Your task to perform on an android device: turn pop-ups on in chrome Image 0: 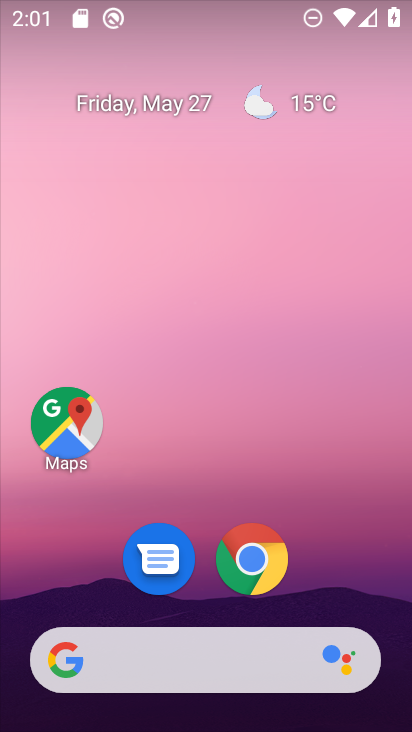
Step 0: drag from (302, 650) to (318, 13)
Your task to perform on an android device: turn pop-ups on in chrome Image 1: 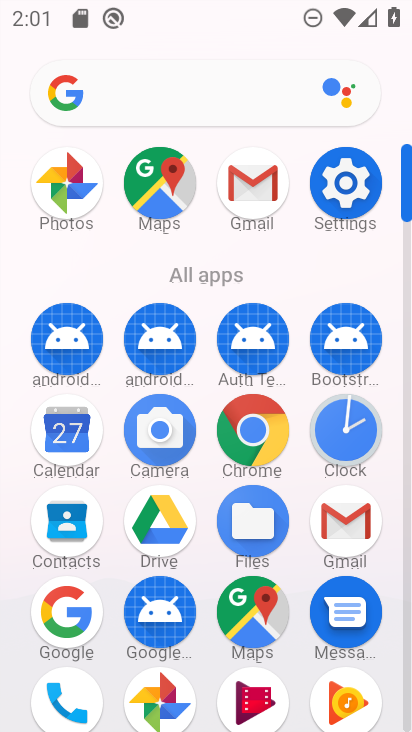
Step 1: click (250, 434)
Your task to perform on an android device: turn pop-ups on in chrome Image 2: 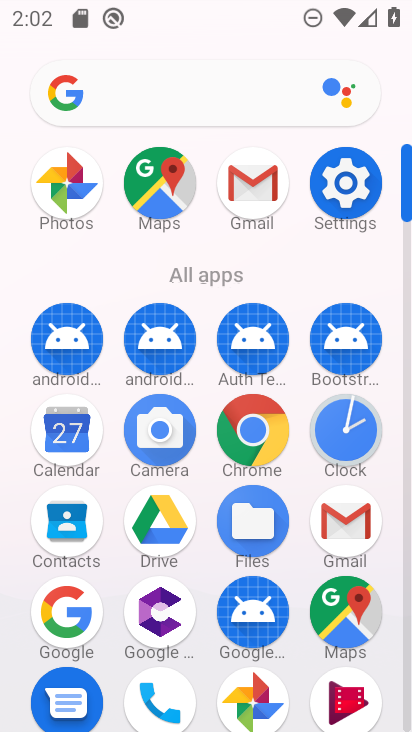
Step 2: click (273, 431)
Your task to perform on an android device: turn pop-ups on in chrome Image 3: 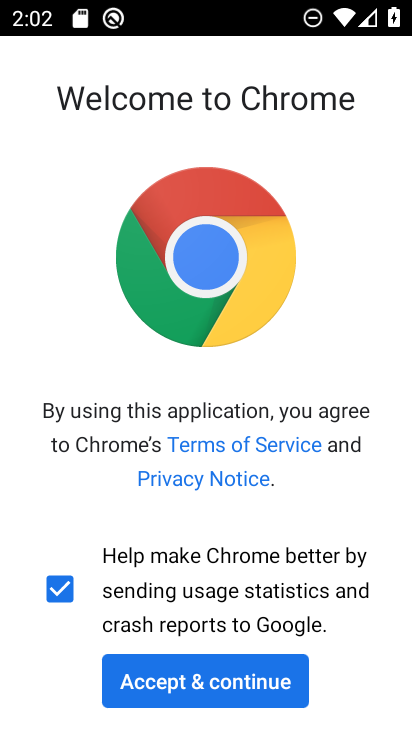
Step 3: click (235, 660)
Your task to perform on an android device: turn pop-ups on in chrome Image 4: 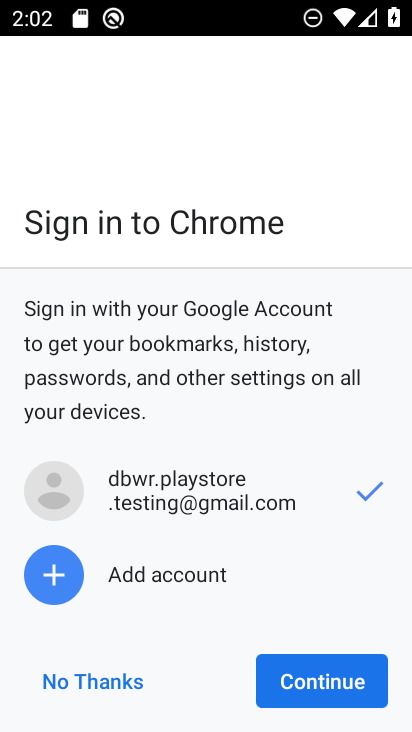
Step 4: click (70, 677)
Your task to perform on an android device: turn pop-ups on in chrome Image 5: 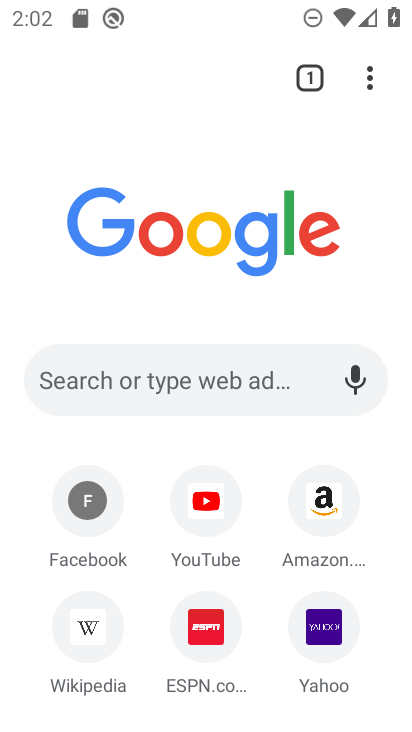
Step 5: drag from (369, 71) to (97, 622)
Your task to perform on an android device: turn pop-ups on in chrome Image 6: 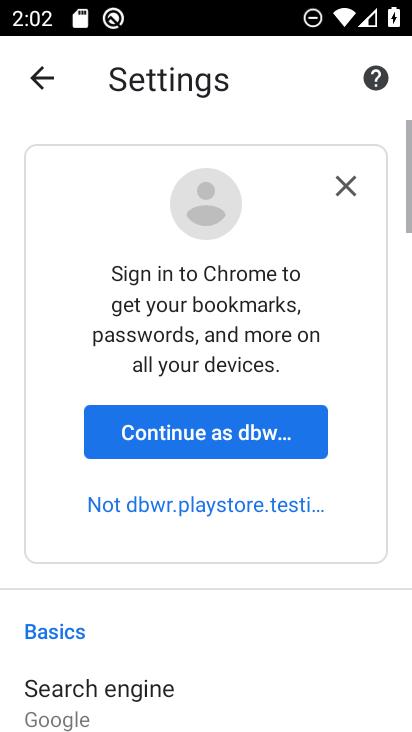
Step 6: drag from (283, 638) to (281, 39)
Your task to perform on an android device: turn pop-ups on in chrome Image 7: 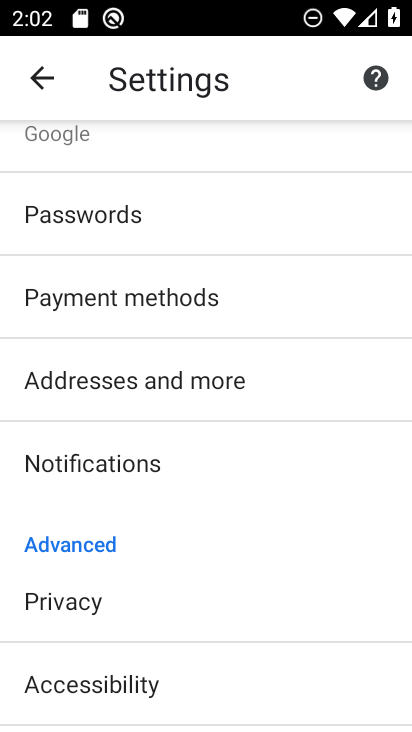
Step 7: drag from (209, 678) to (220, 195)
Your task to perform on an android device: turn pop-ups on in chrome Image 8: 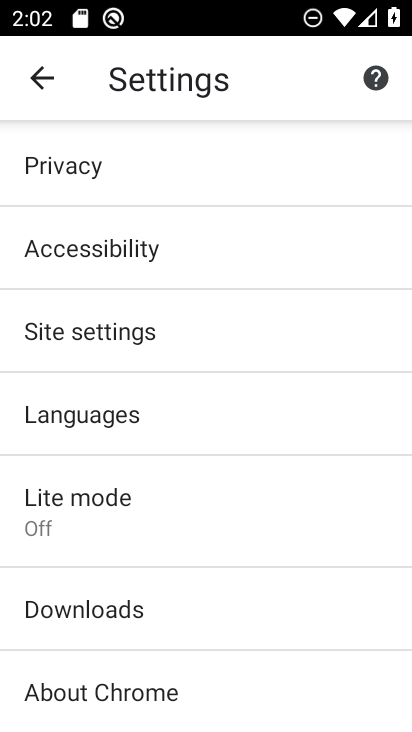
Step 8: click (209, 344)
Your task to perform on an android device: turn pop-ups on in chrome Image 9: 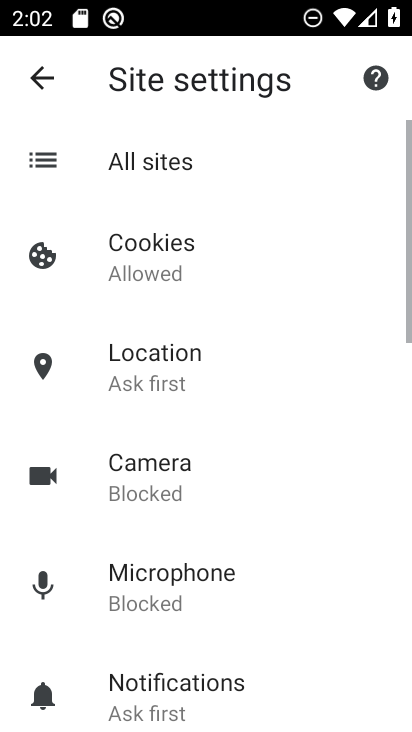
Step 9: drag from (238, 587) to (233, 46)
Your task to perform on an android device: turn pop-ups on in chrome Image 10: 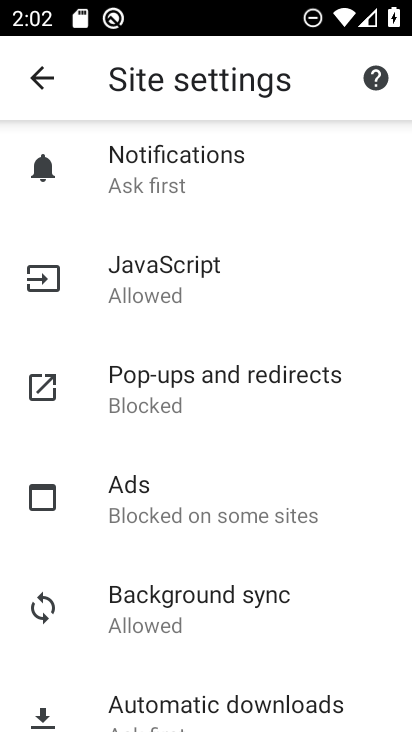
Step 10: click (204, 390)
Your task to perform on an android device: turn pop-ups on in chrome Image 11: 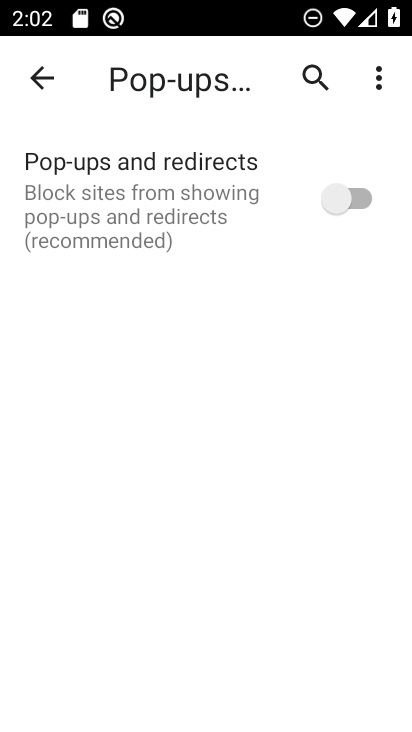
Step 11: click (364, 195)
Your task to perform on an android device: turn pop-ups on in chrome Image 12: 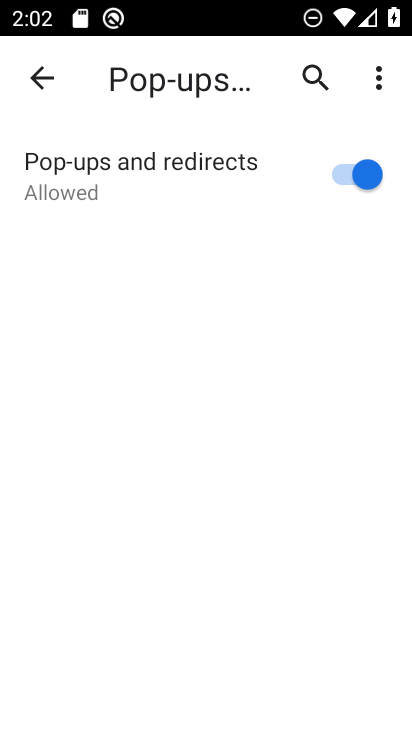
Step 12: task complete